Your task to perform on an android device: Go to accessibility settings Image 0: 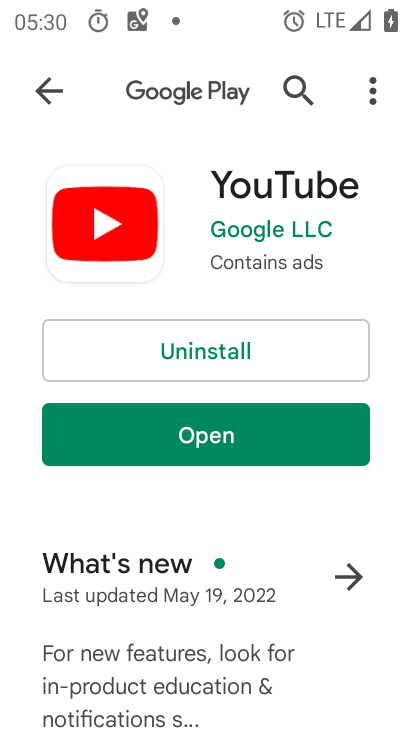
Step 0: press home button
Your task to perform on an android device: Go to accessibility settings Image 1: 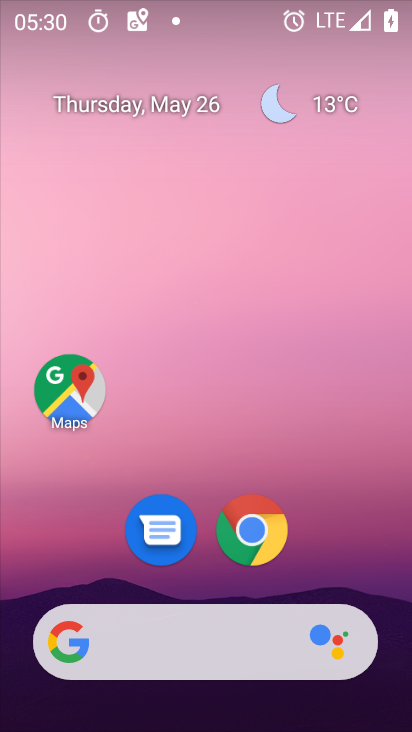
Step 1: drag from (269, 600) to (321, 5)
Your task to perform on an android device: Go to accessibility settings Image 2: 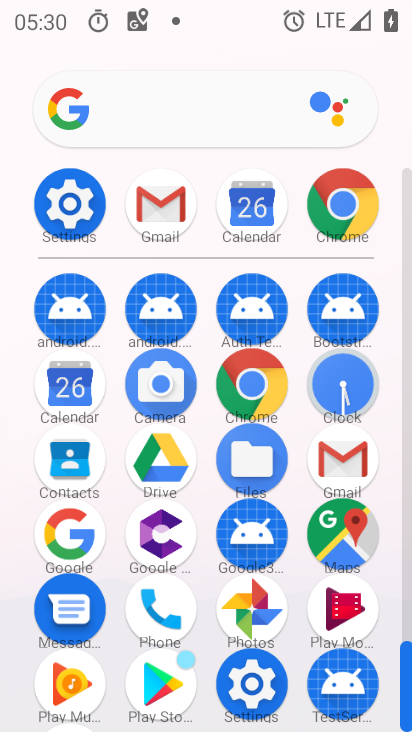
Step 2: click (76, 200)
Your task to perform on an android device: Go to accessibility settings Image 3: 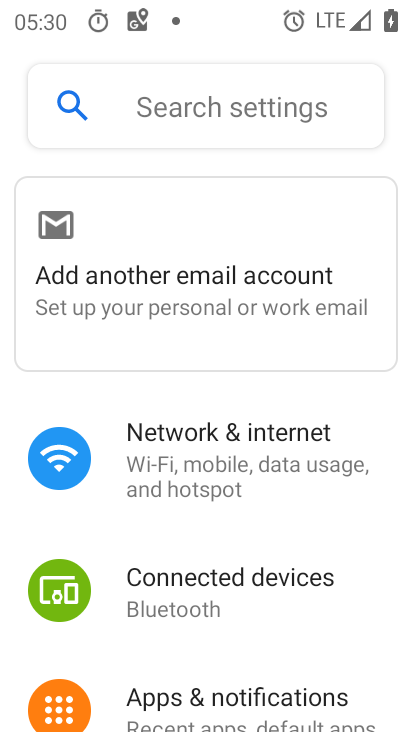
Step 3: drag from (246, 633) to (232, 60)
Your task to perform on an android device: Go to accessibility settings Image 4: 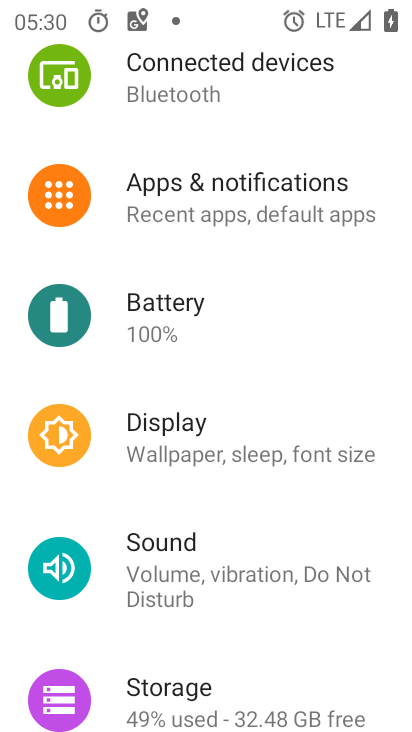
Step 4: drag from (272, 638) to (264, 169)
Your task to perform on an android device: Go to accessibility settings Image 5: 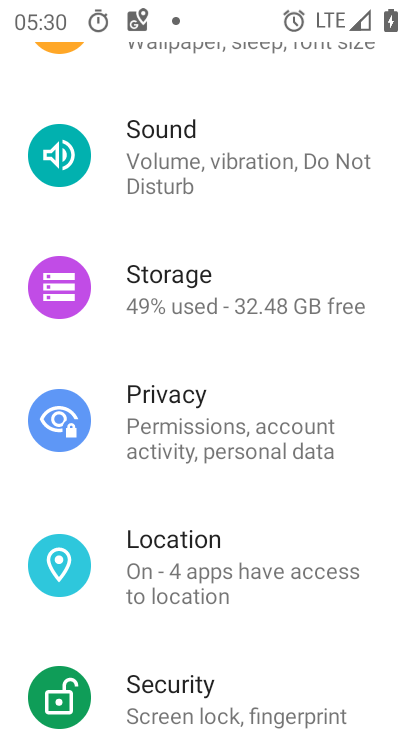
Step 5: drag from (272, 679) to (295, 175)
Your task to perform on an android device: Go to accessibility settings Image 6: 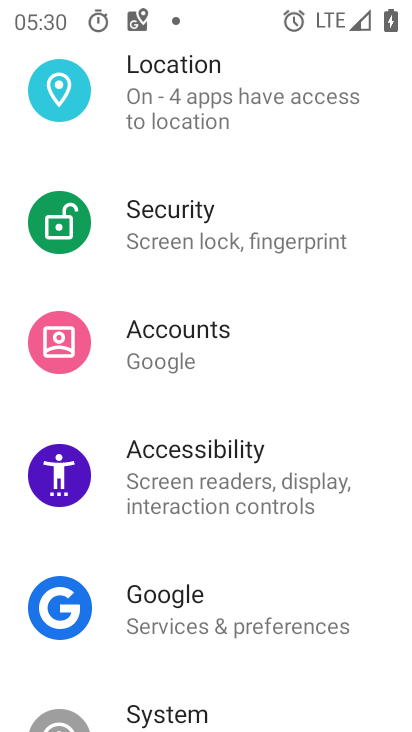
Step 6: click (252, 476)
Your task to perform on an android device: Go to accessibility settings Image 7: 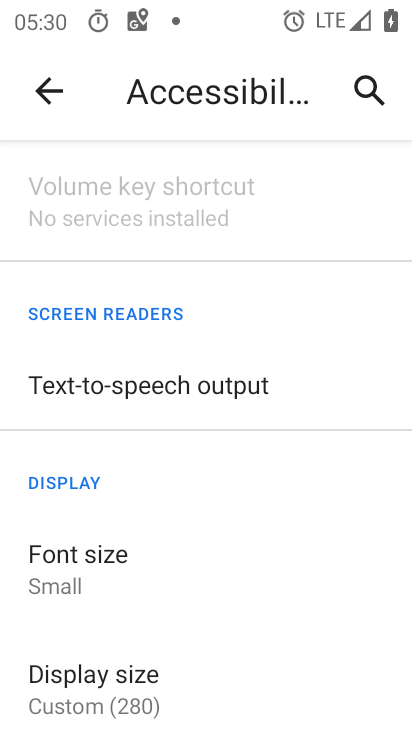
Step 7: task complete